Your task to perform on an android device: change the clock display to show seconds Image 0: 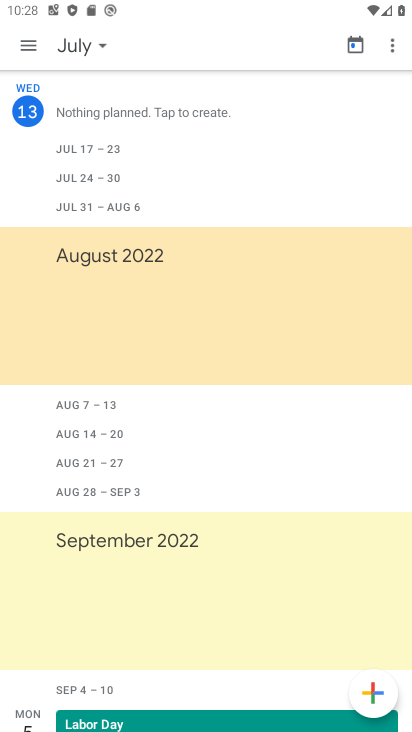
Step 0: press home button
Your task to perform on an android device: change the clock display to show seconds Image 1: 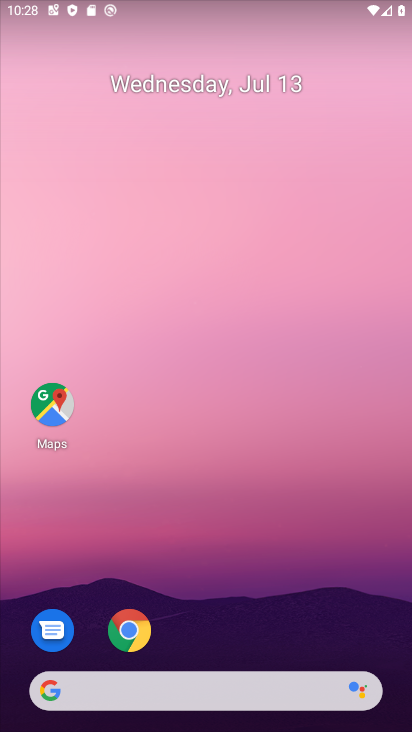
Step 1: drag from (273, 565) to (253, 8)
Your task to perform on an android device: change the clock display to show seconds Image 2: 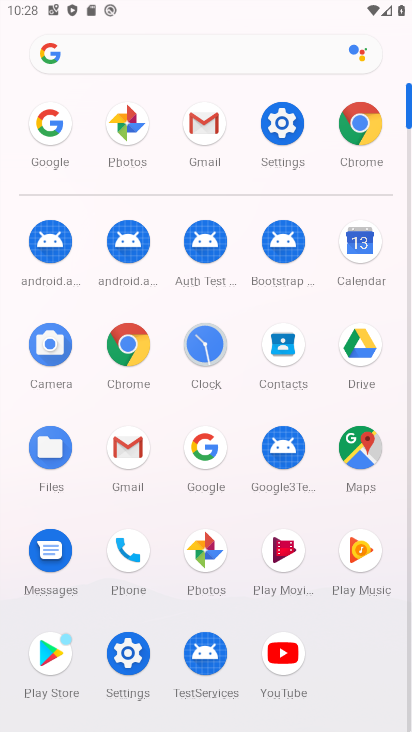
Step 2: click (207, 344)
Your task to perform on an android device: change the clock display to show seconds Image 3: 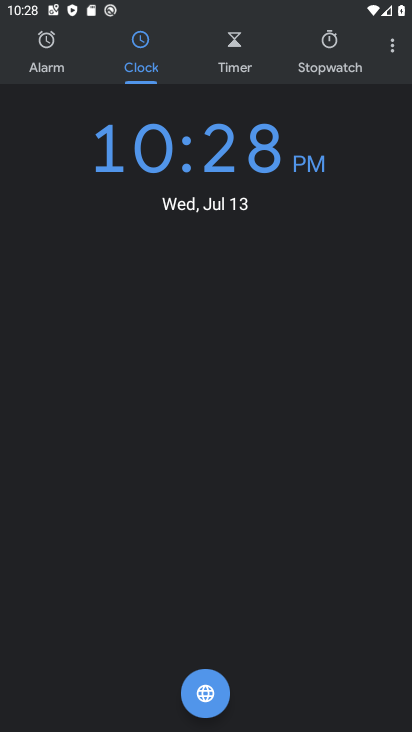
Step 3: click (395, 48)
Your task to perform on an android device: change the clock display to show seconds Image 4: 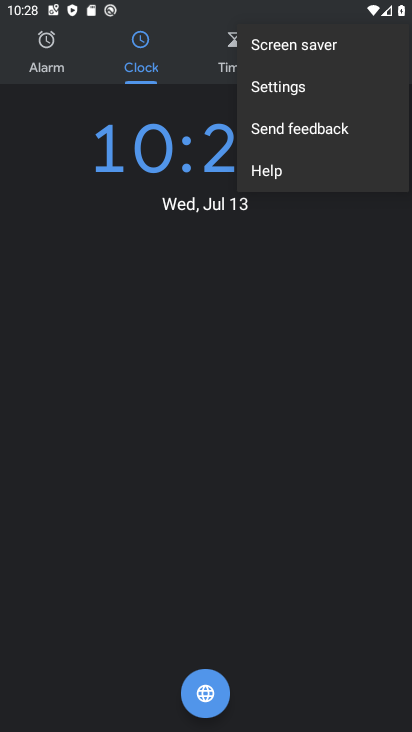
Step 4: click (302, 88)
Your task to perform on an android device: change the clock display to show seconds Image 5: 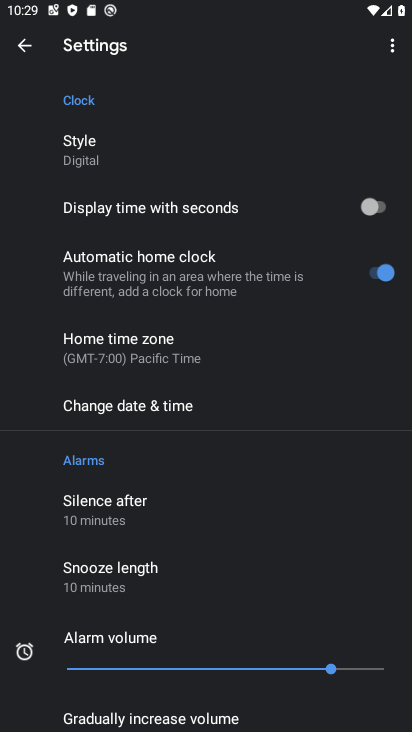
Step 5: click (386, 204)
Your task to perform on an android device: change the clock display to show seconds Image 6: 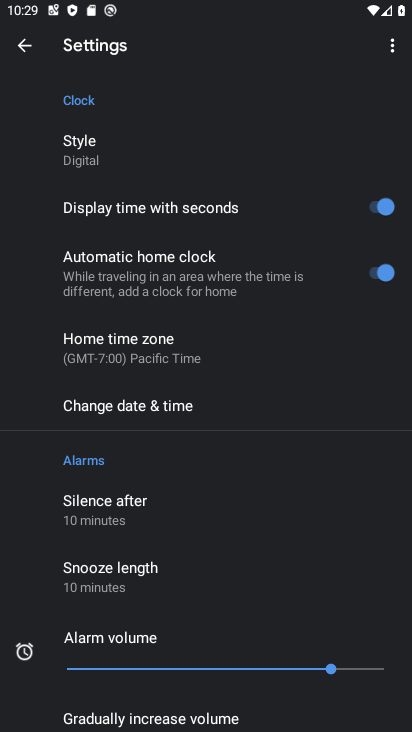
Step 6: task complete